Your task to perform on an android device: turn off smart reply in the gmail app Image 0: 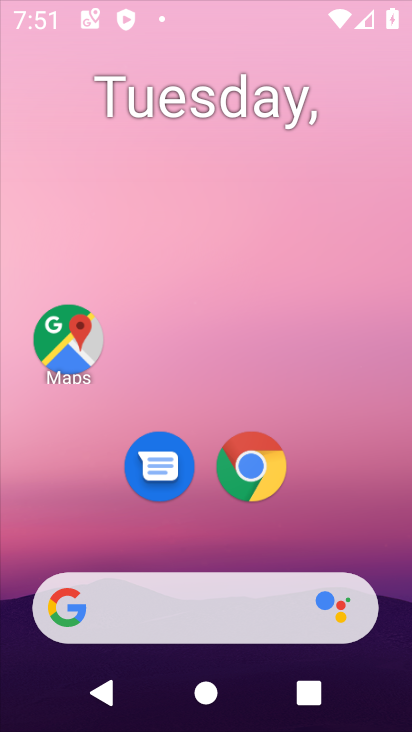
Step 0: press home button
Your task to perform on an android device: turn off smart reply in the gmail app Image 1: 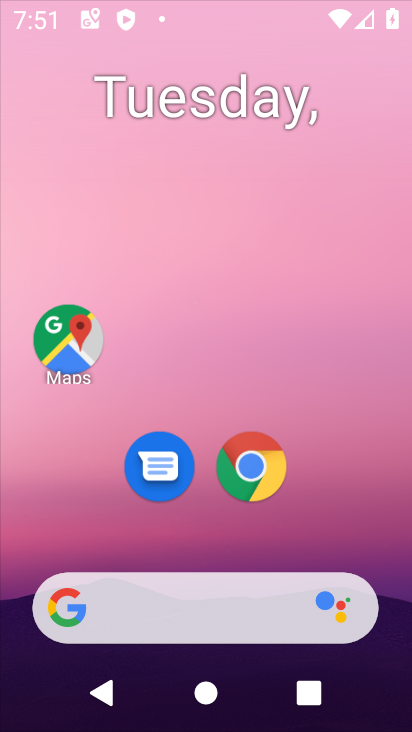
Step 1: click (192, 54)
Your task to perform on an android device: turn off smart reply in the gmail app Image 2: 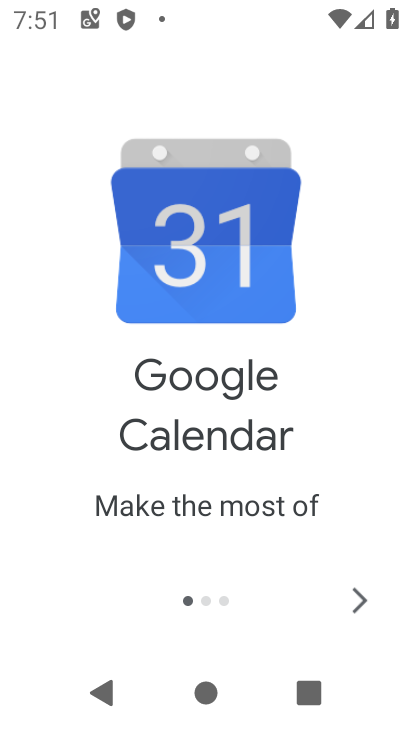
Step 2: press home button
Your task to perform on an android device: turn off smart reply in the gmail app Image 3: 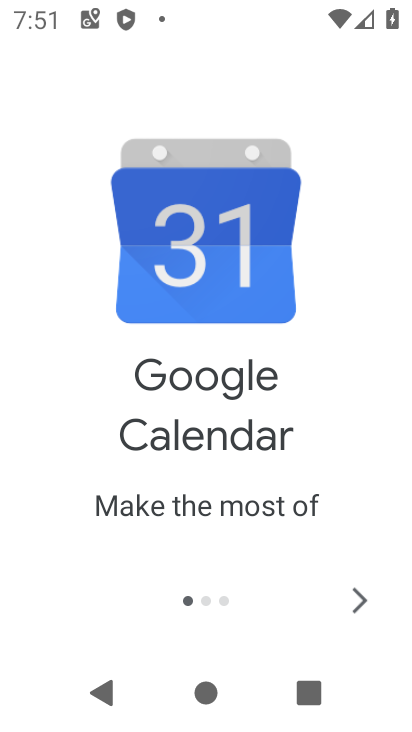
Step 3: press home button
Your task to perform on an android device: turn off smart reply in the gmail app Image 4: 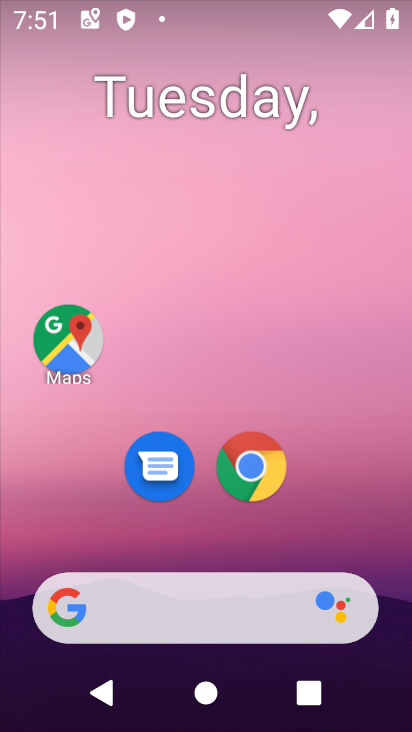
Step 4: drag from (207, 532) to (210, 42)
Your task to perform on an android device: turn off smart reply in the gmail app Image 5: 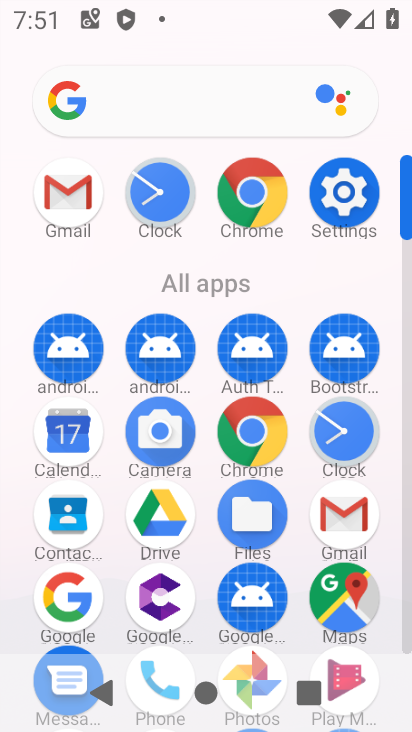
Step 5: click (340, 511)
Your task to perform on an android device: turn off smart reply in the gmail app Image 6: 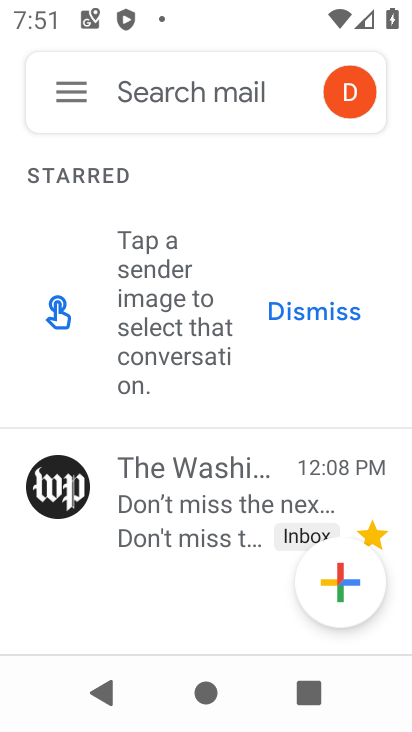
Step 6: click (67, 83)
Your task to perform on an android device: turn off smart reply in the gmail app Image 7: 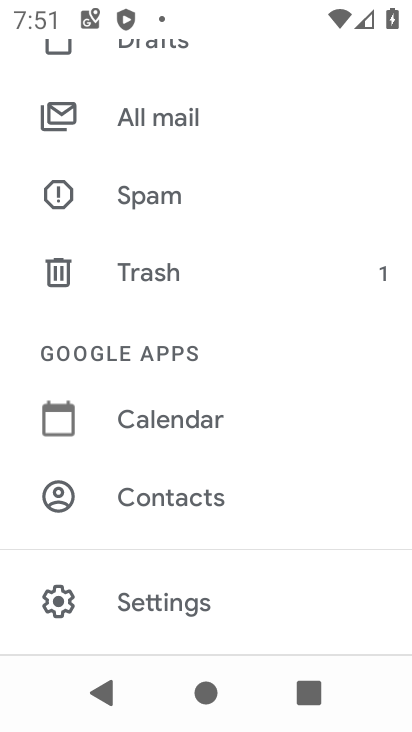
Step 7: click (202, 597)
Your task to perform on an android device: turn off smart reply in the gmail app Image 8: 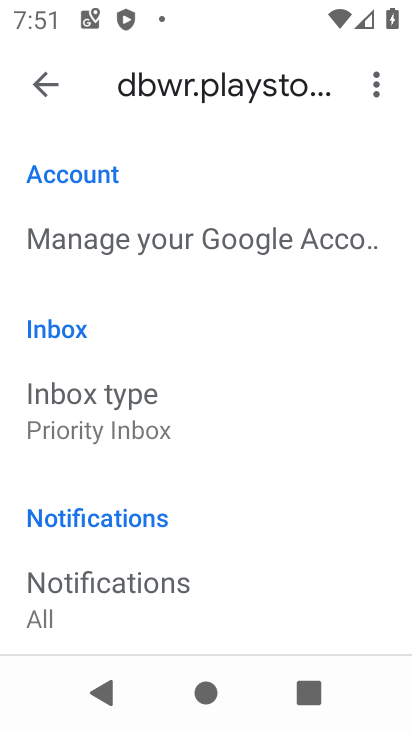
Step 8: drag from (219, 589) to (253, 110)
Your task to perform on an android device: turn off smart reply in the gmail app Image 9: 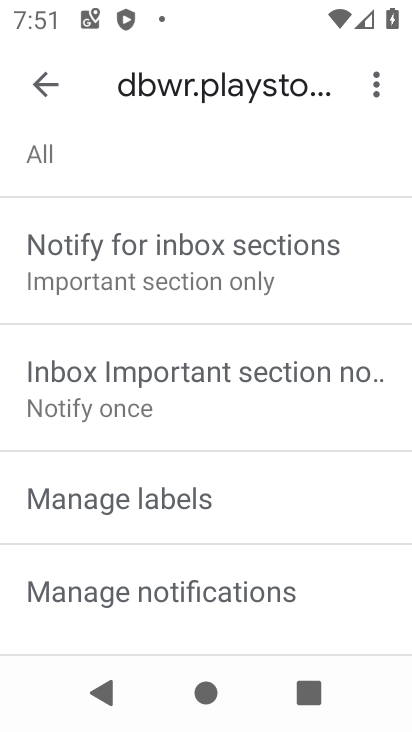
Step 9: drag from (236, 595) to (259, 177)
Your task to perform on an android device: turn off smart reply in the gmail app Image 10: 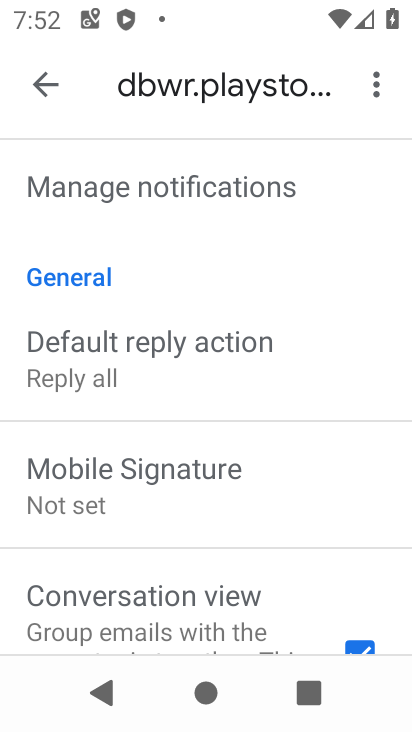
Step 10: drag from (235, 596) to (249, 161)
Your task to perform on an android device: turn off smart reply in the gmail app Image 11: 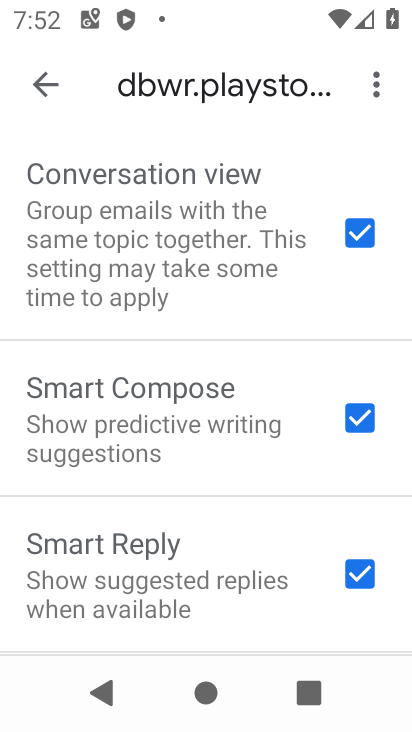
Step 11: click (356, 574)
Your task to perform on an android device: turn off smart reply in the gmail app Image 12: 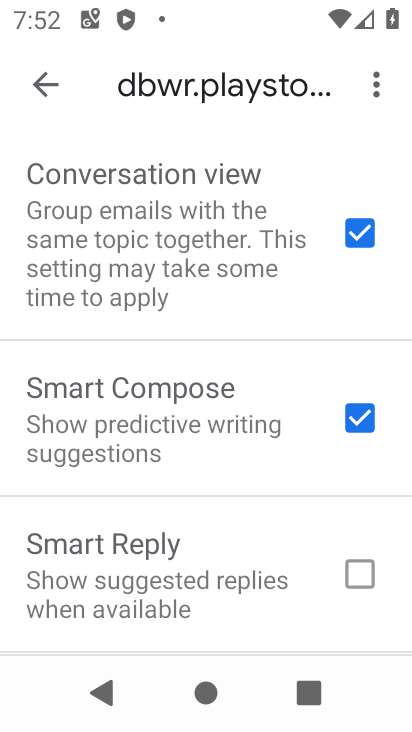
Step 12: task complete